Your task to perform on an android device: turn on improve location accuracy Image 0: 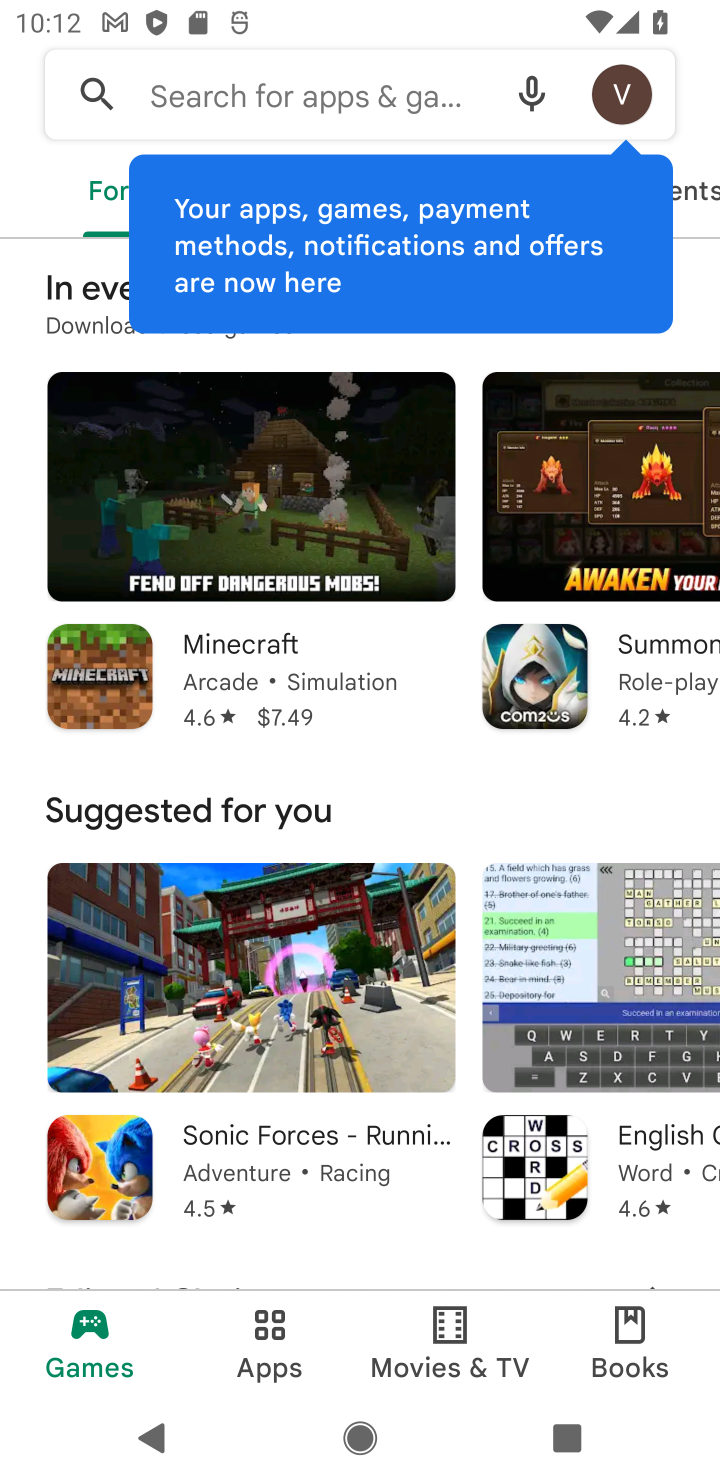
Step 0: press home button
Your task to perform on an android device: turn on improve location accuracy Image 1: 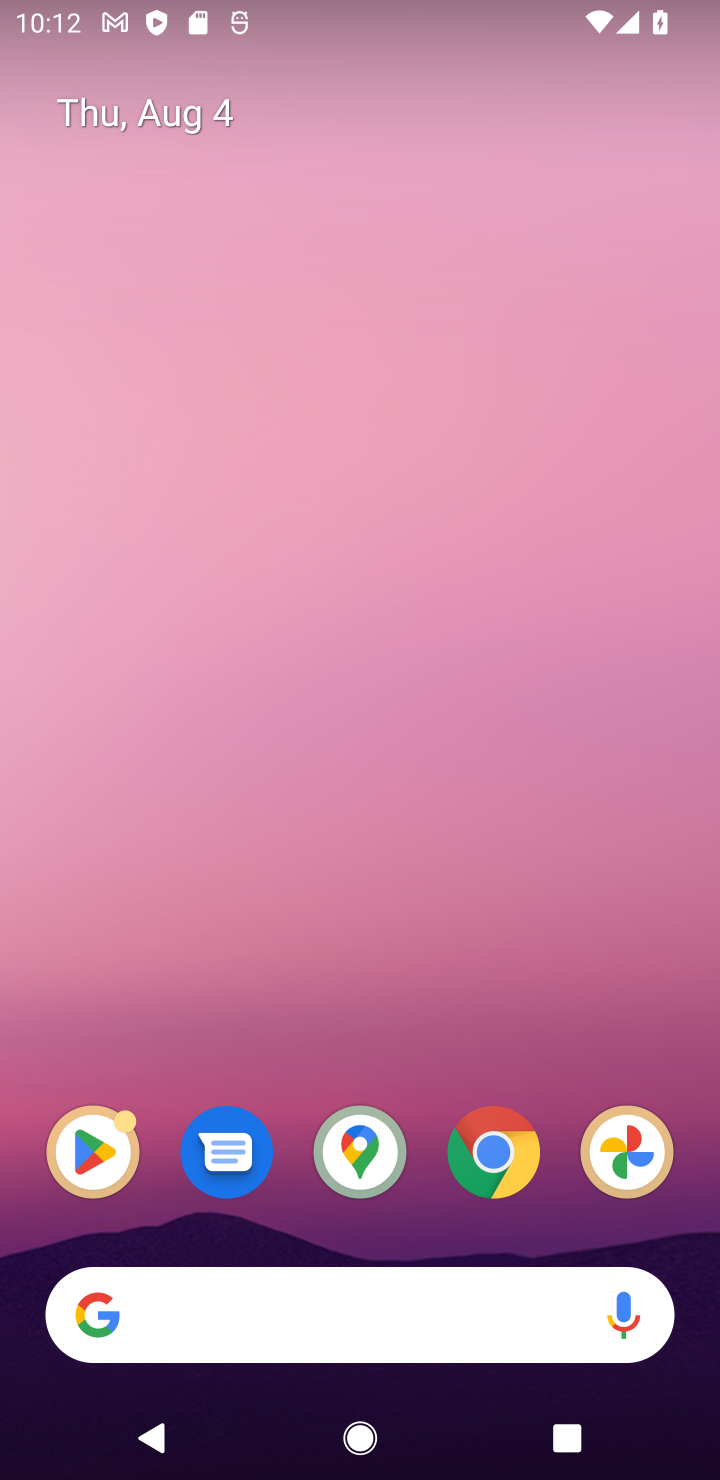
Step 1: drag from (382, 1063) to (218, 402)
Your task to perform on an android device: turn on improve location accuracy Image 2: 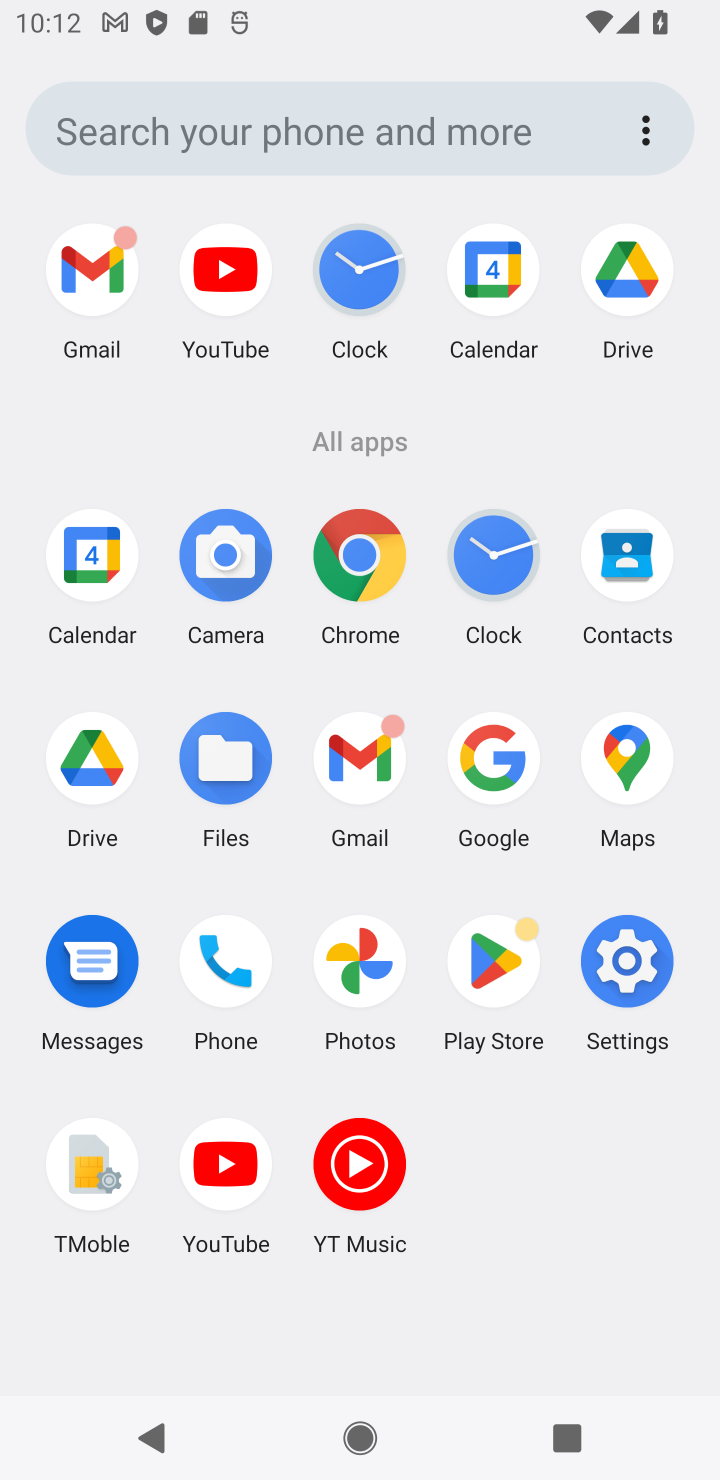
Step 2: click (589, 1000)
Your task to perform on an android device: turn on improve location accuracy Image 3: 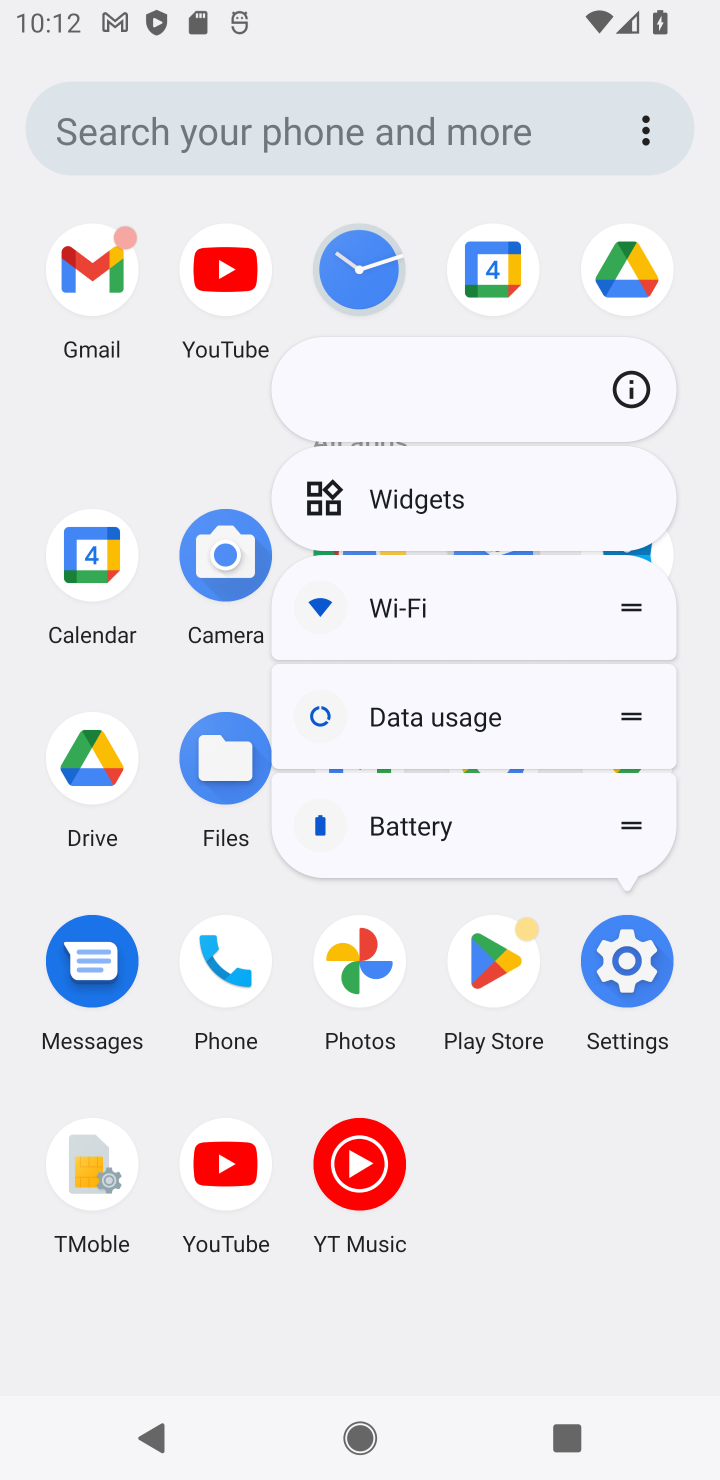
Step 3: click (625, 977)
Your task to perform on an android device: turn on improve location accuracy Image 4: 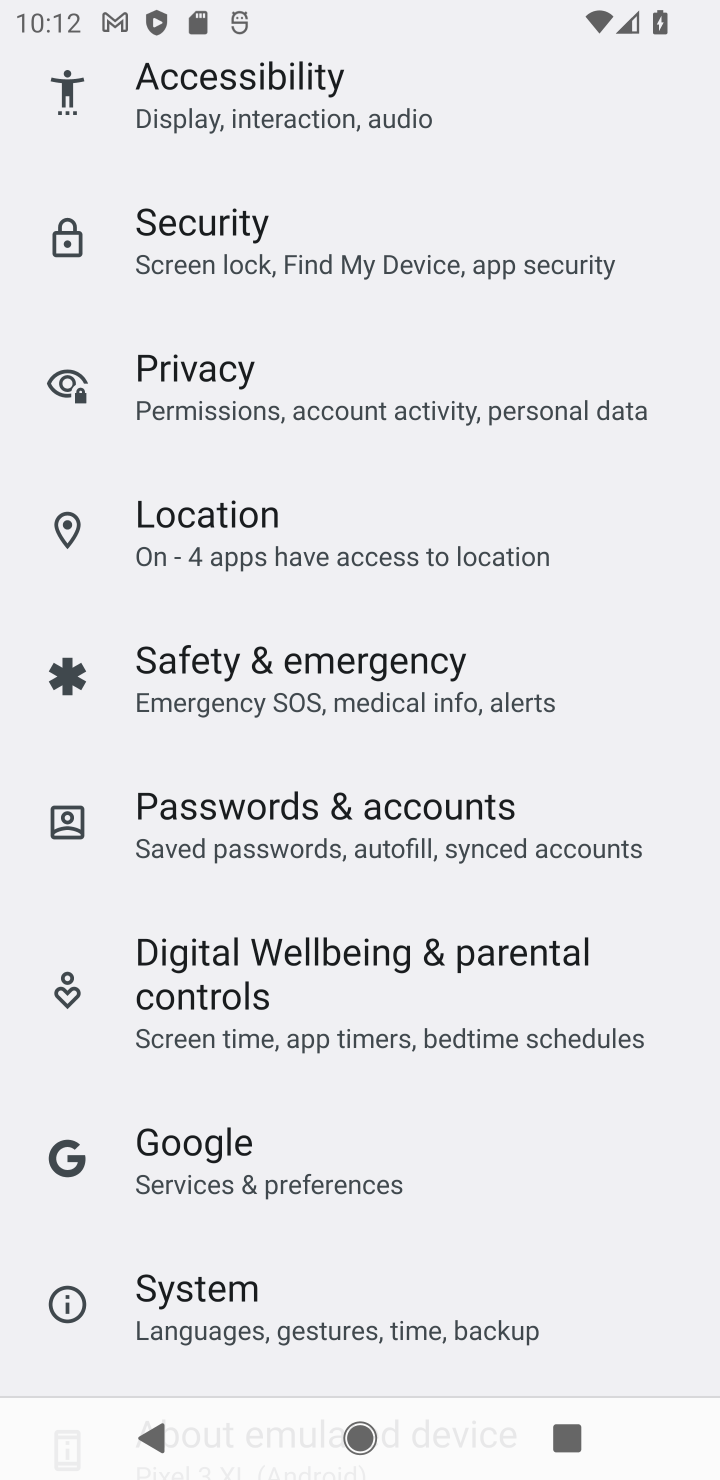
Step 4: drag from (355, 967) to (348, 645)
Your task to perform on an android device: turn on improve location accuracy Image 5: 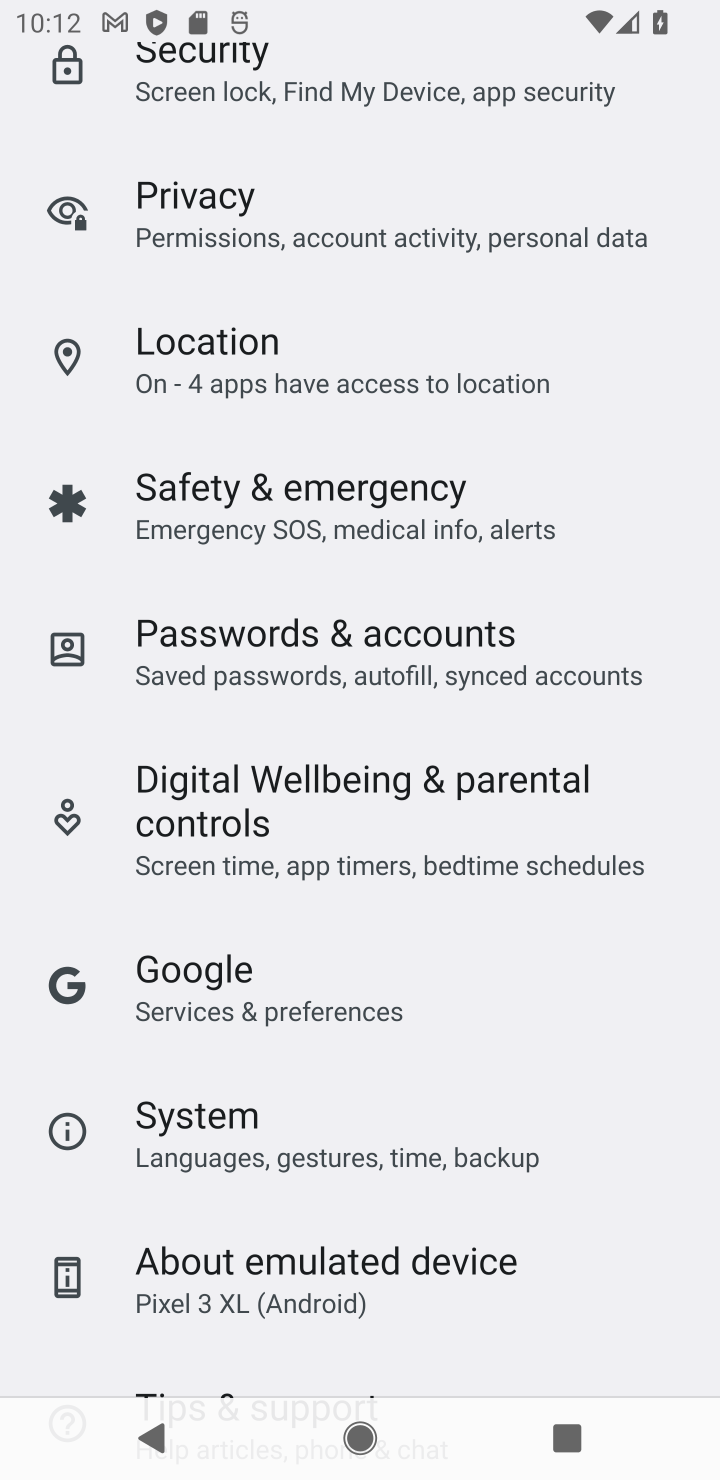
Step 5: click (248, 378)
Your task to perform on an android device: turn on improve location accuracy Image 6: 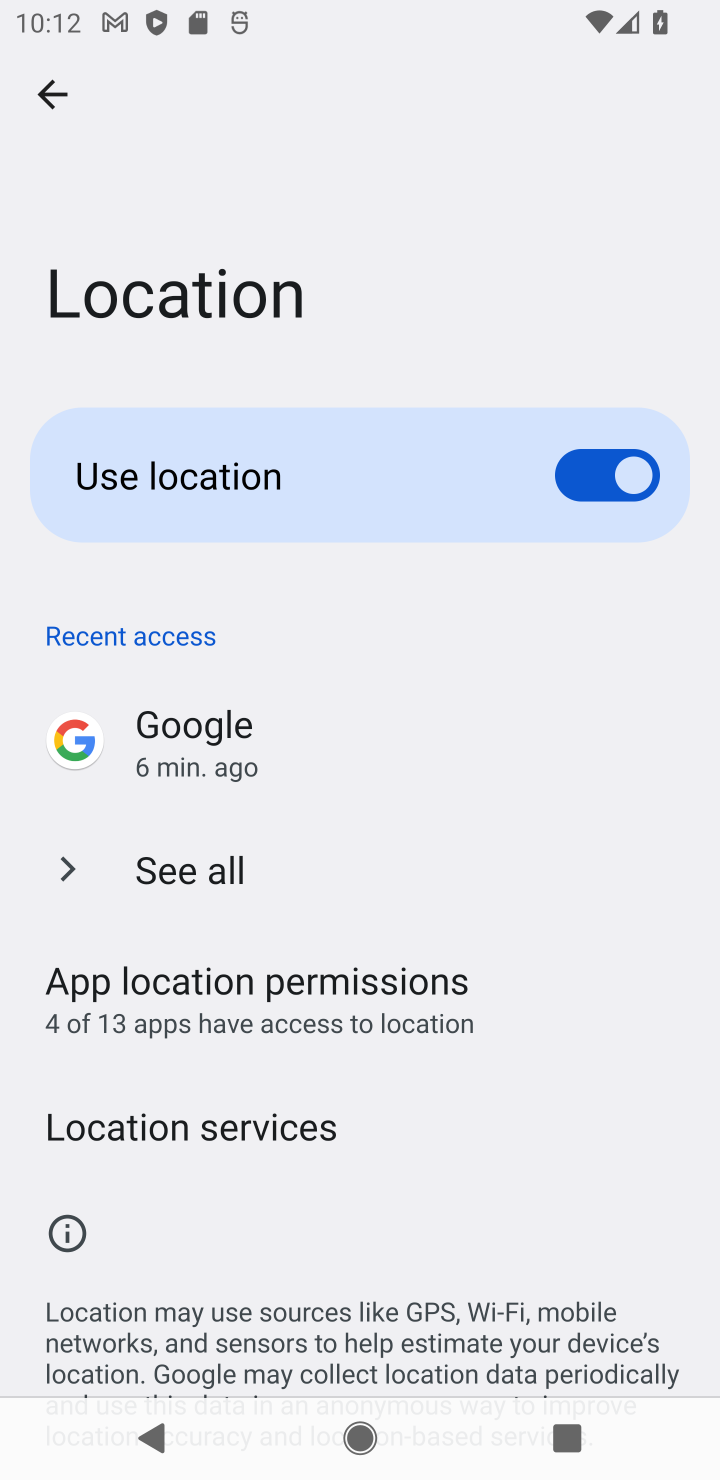
Step 6: drag from (361, 1048) to (363, 674)
Your task to perform on an android device: turn on improve location accuracy Image 7: 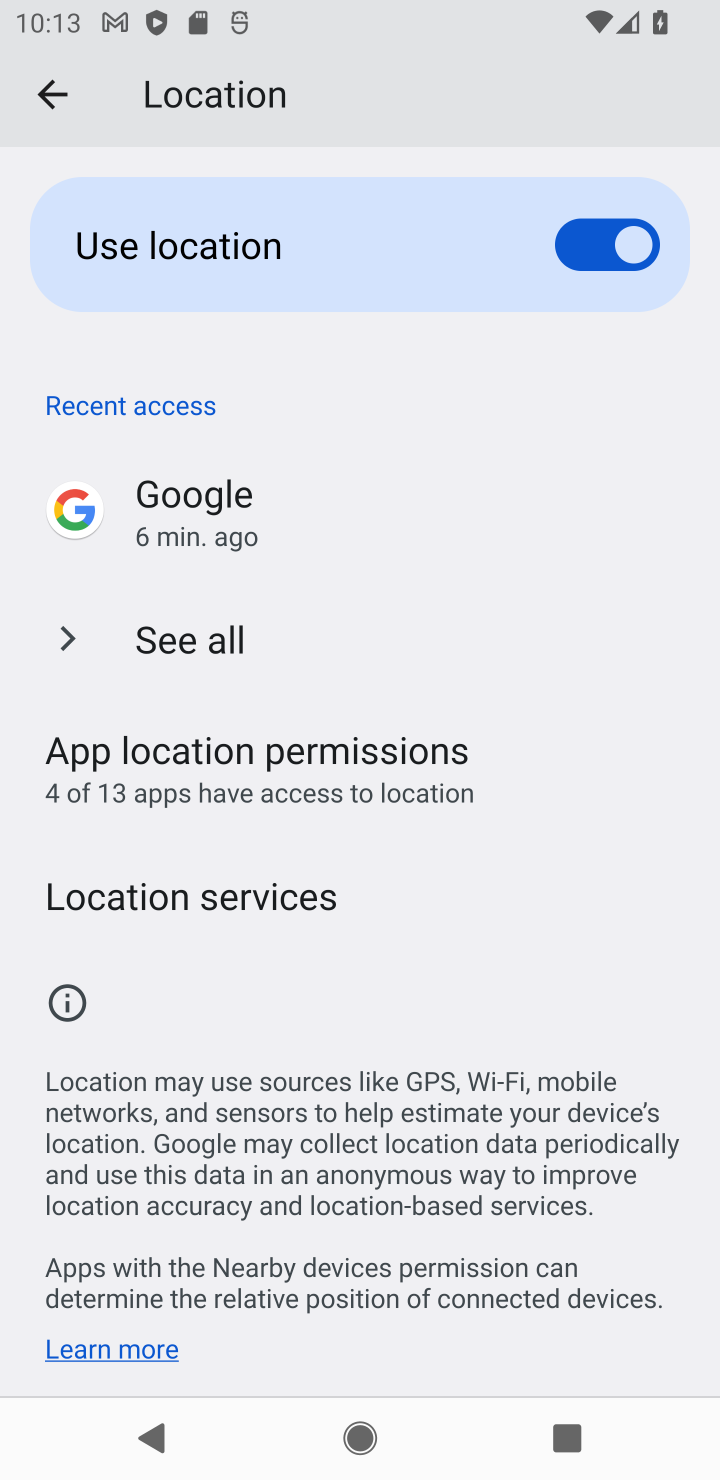
Step 7: click (258, 887)
Your task to perform on an android device: turn on improve location accuracy Image 8: 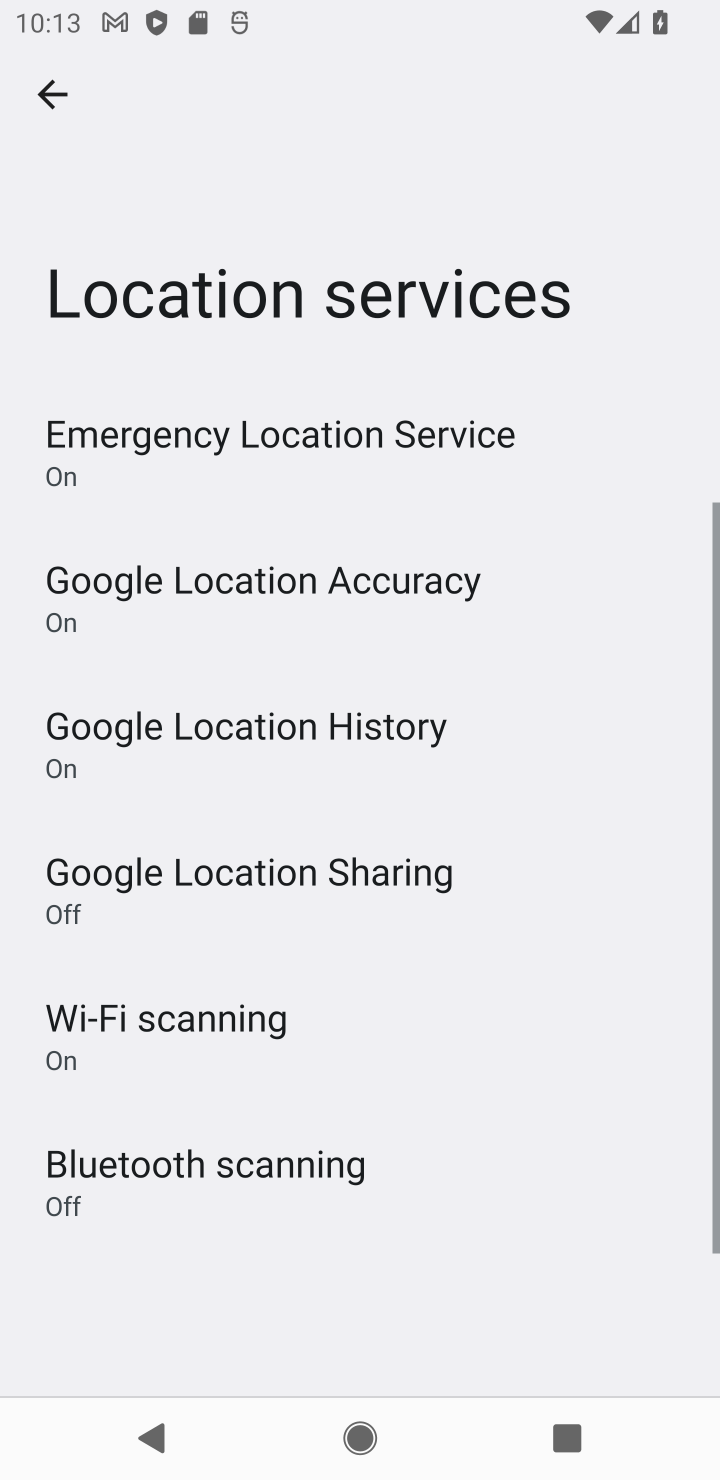
Step 8: click (362, 592)
Your task to perform on an android device: turn on improve location accuracy Image 9: 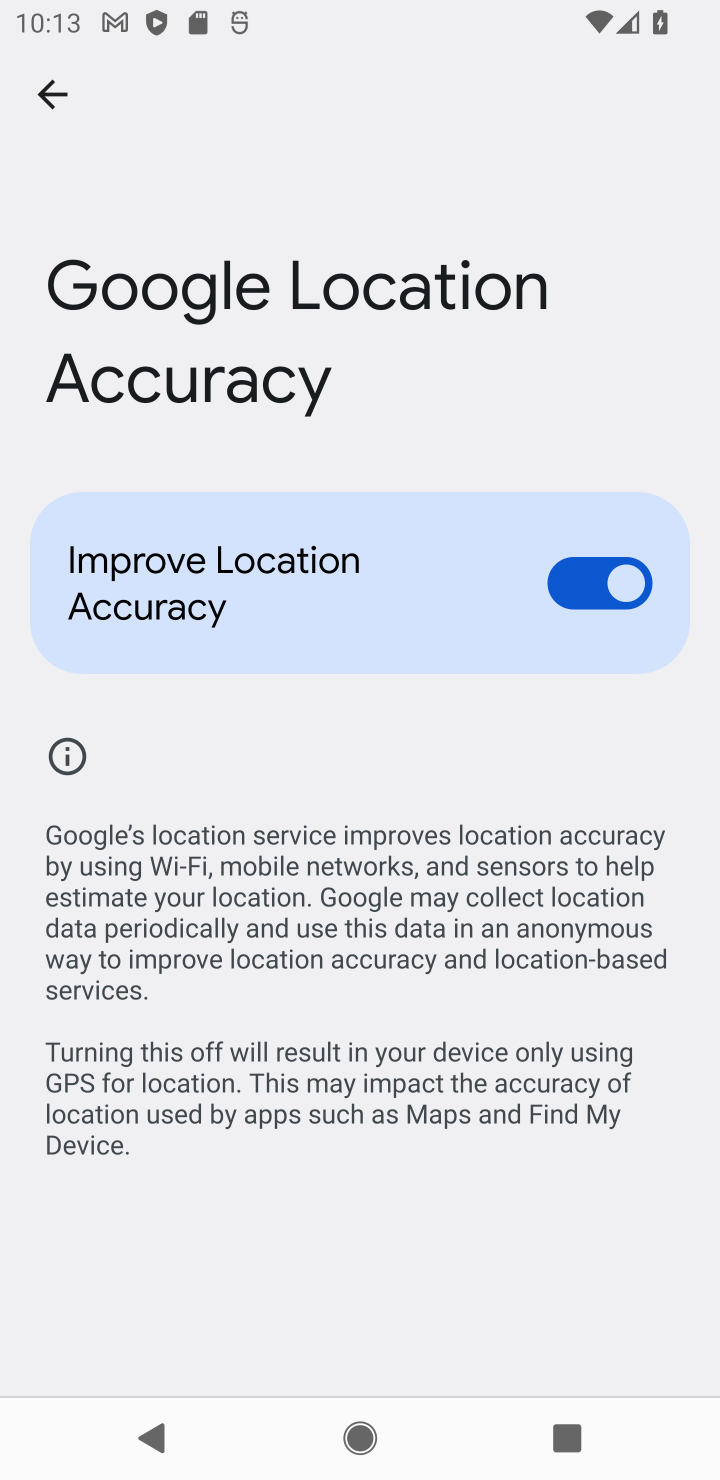
Step 9: task complete